Your task to perform on an android device: Clear all items from cart on amazon.com. Add usb-a to usb-b to the cart on amazon.com, then select checkout. Image 0: 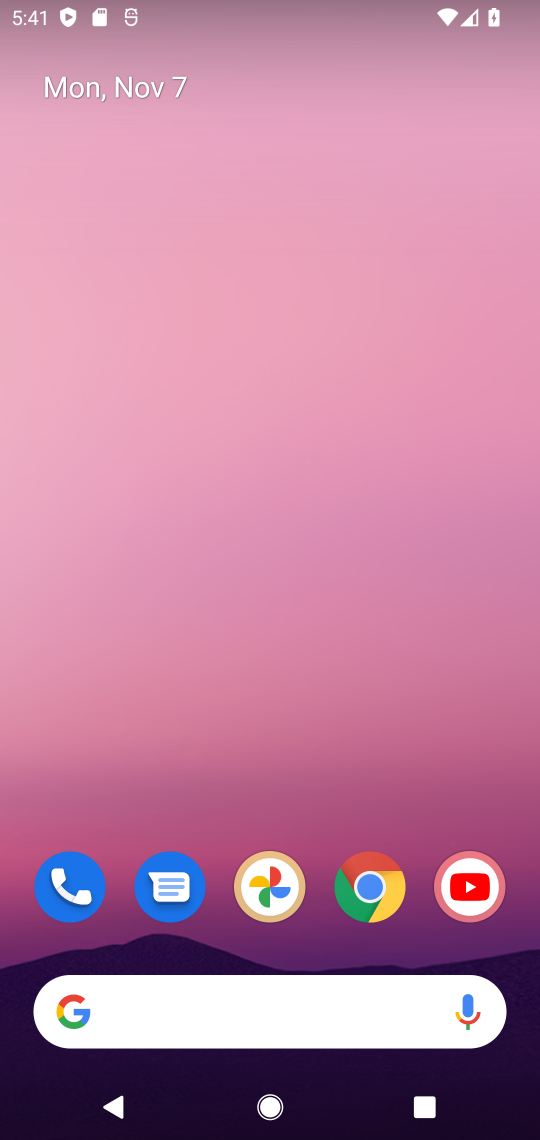
Step 0: click (368, 896)
Your task to perform on an android device: Clear all items from cart on amazon.com. Add usb-a to usb-b to the cart on amazon.com, then select checkout. Image 1: 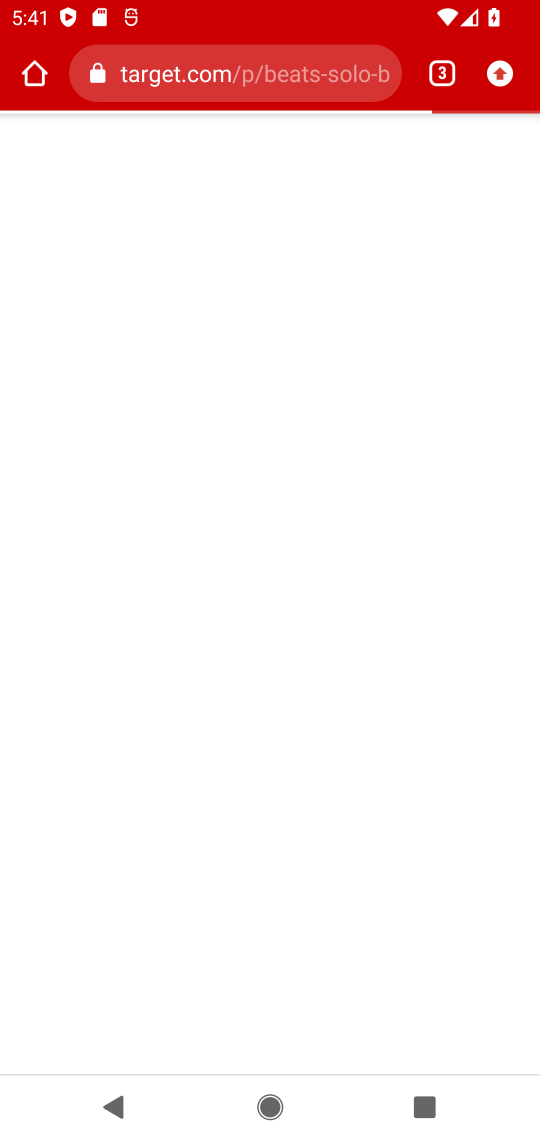
Step 1: click (450, 72)
Your task to perform on an android device: Clear all items from cart on amazon.com. Add usb-a to usb-b to the cart on amazon.com, then select checkout. Image 2: 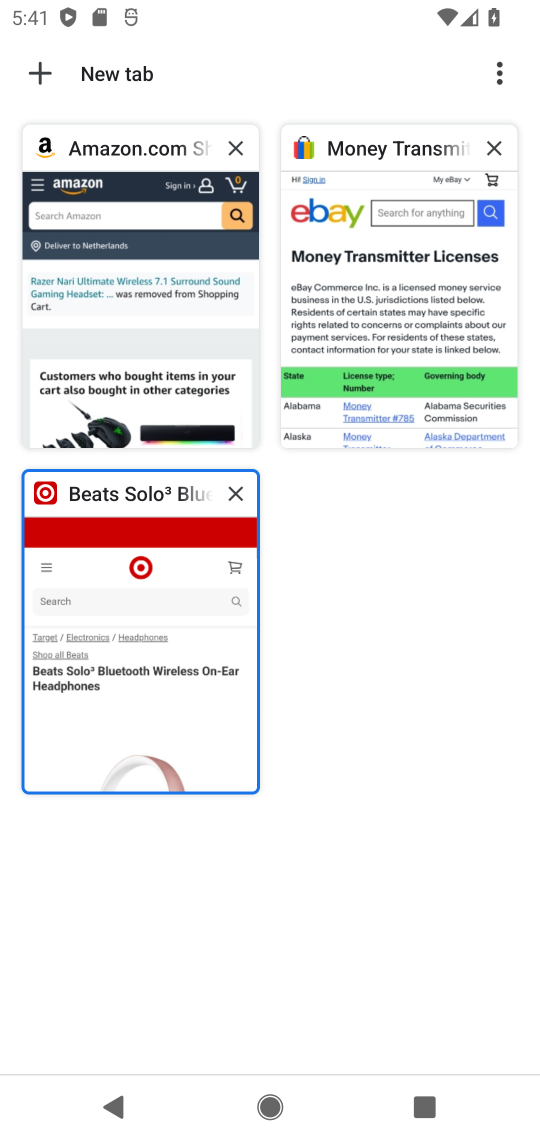
Step 2: click (139, 239)
Your task to perform on an android device: Clear all items from cart on amazon.com. Add usb-a to usb-b to the cart on amazon.com, then select checkout. Image 3: 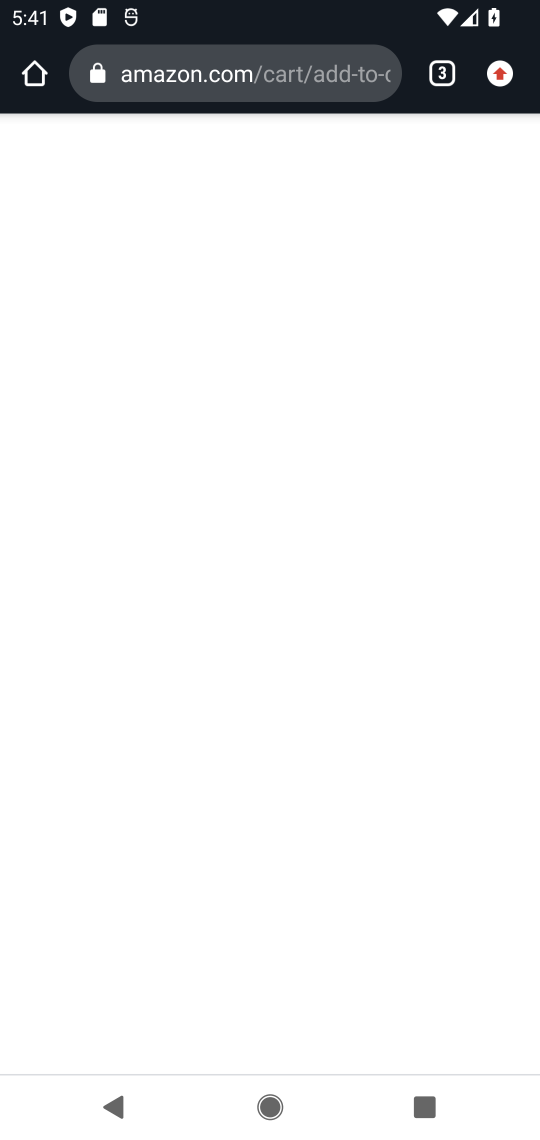
Step 3: click (74, 341)
Your task to perform on an android device: Clear all items from cart on amazon.com. Add usb-a to usb-b to the cart on amazon.com, then select checkout. Image 4: 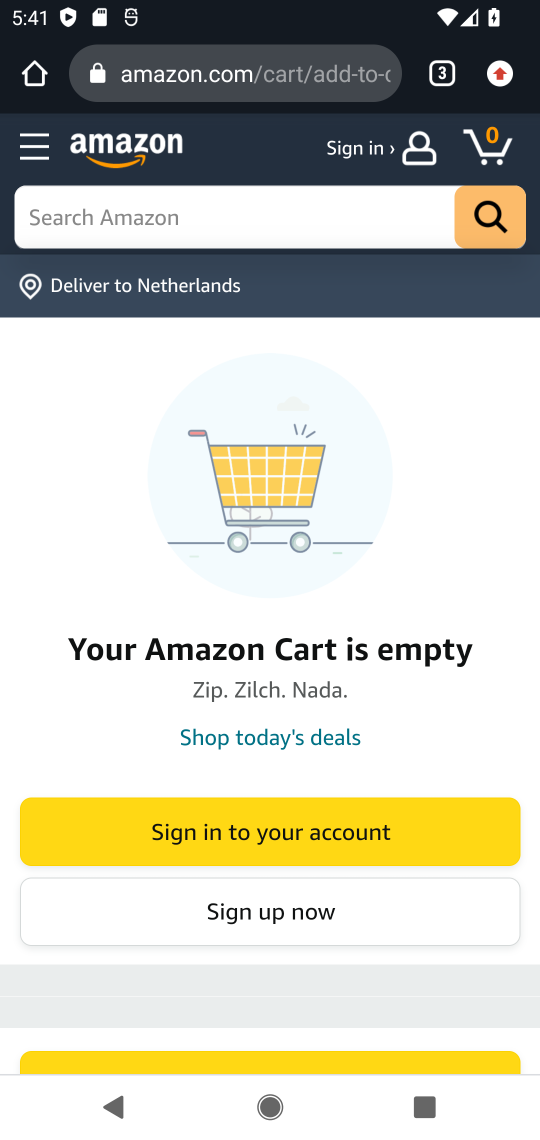
Step 4: click (164, 222)
Your task to perform on an android device: Clear all items from cart on amazon.com. Add usb-a to usb-b to the cart on amazon.com, then select checkout. Image 5: 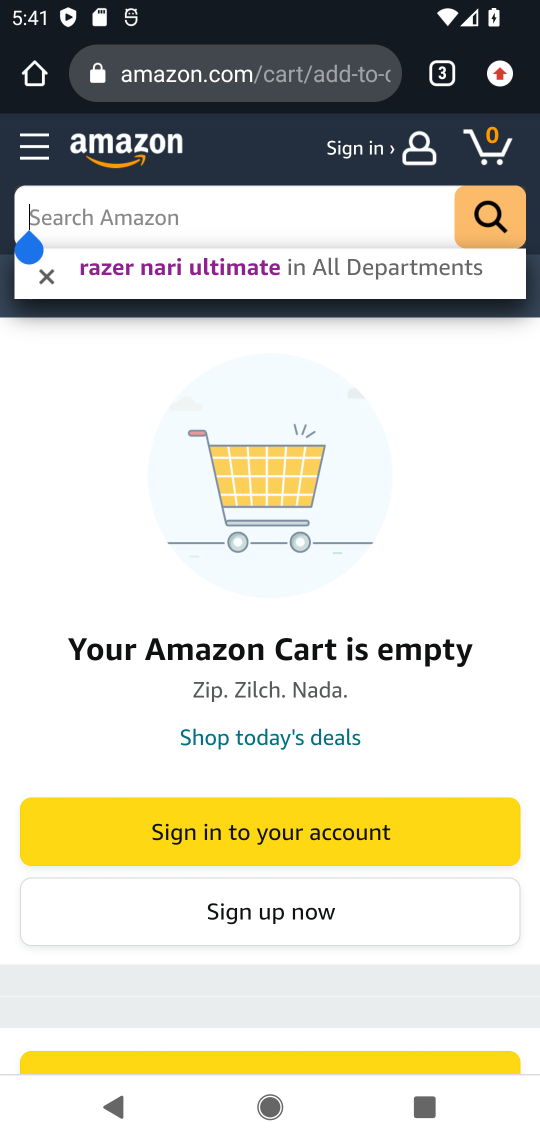
Step 5: type "usb-a to usb-b "
Your task to perform on an android device: Clear all items from cart on amazon.com. Add usb-a to usb-b to the cart on amazon.com, then select checkout. Image 6: 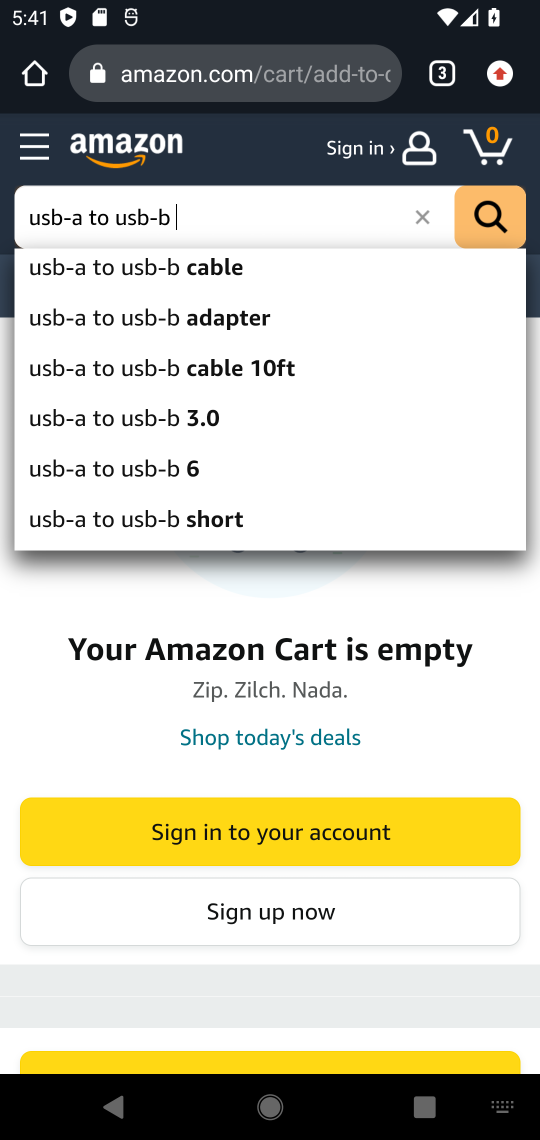
Step 6: click (133, 324)
Your task to perform on an android device: Clear all items from cart on amazon.com. Add usb-a to usb-b to the cart on amazon.com, then select checkout. Image 7: 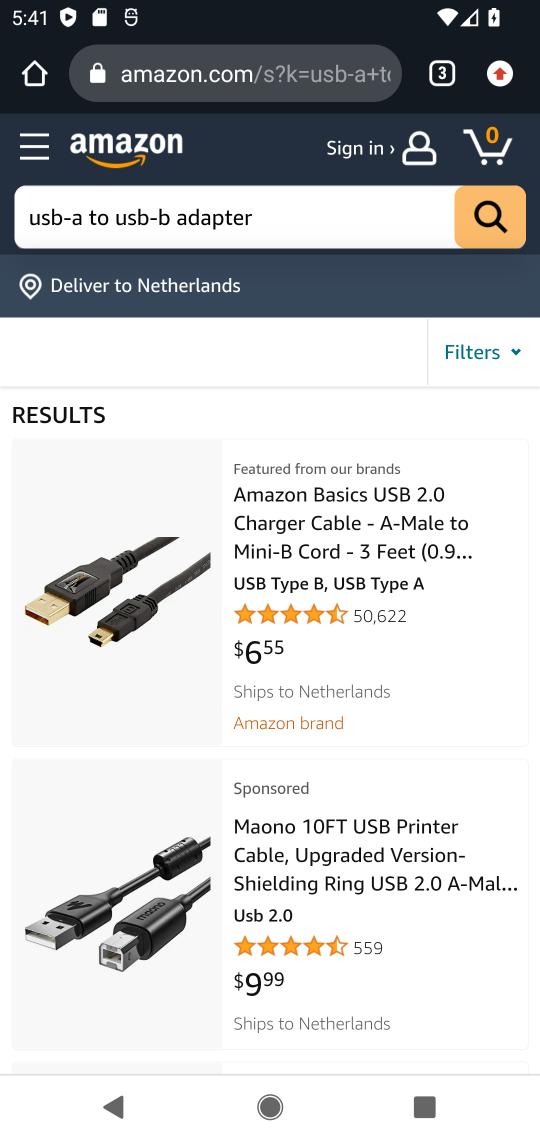
Step 7: drag from (432, 943) to (429, 305)
Your task to perform on an android device: Clear all items from cart on amazon.com. Add usb-a to usb-b to the cart on amazon.com, then select checkout. Image 8: 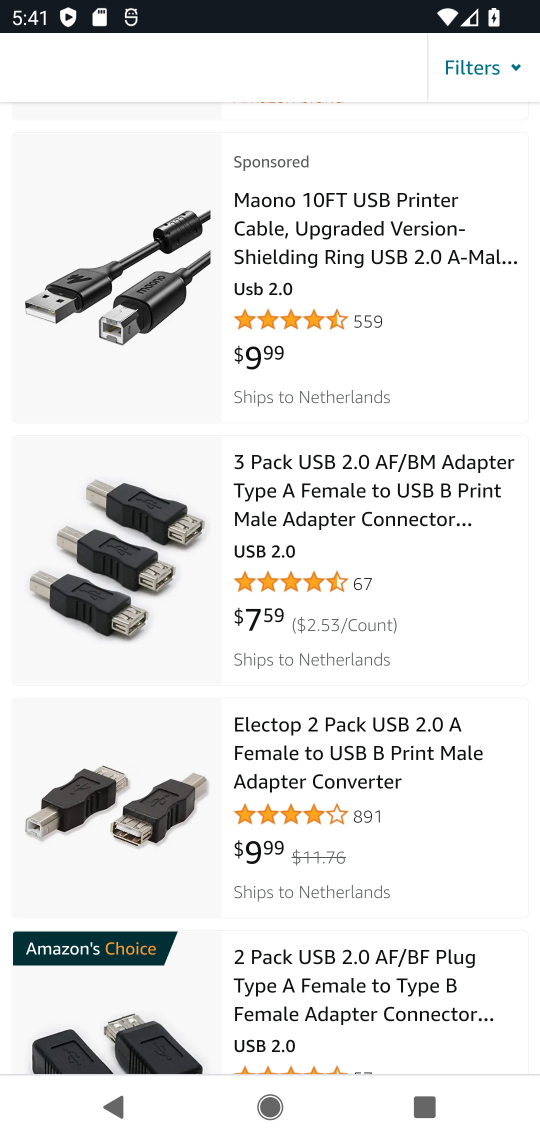
Step 8: click (278, 957)
Your task to perform on an android device: Clear all items from cart on amazon.com. Add usb-a to usb-b to the cart on amazon.com, then select checkout. Image 9: 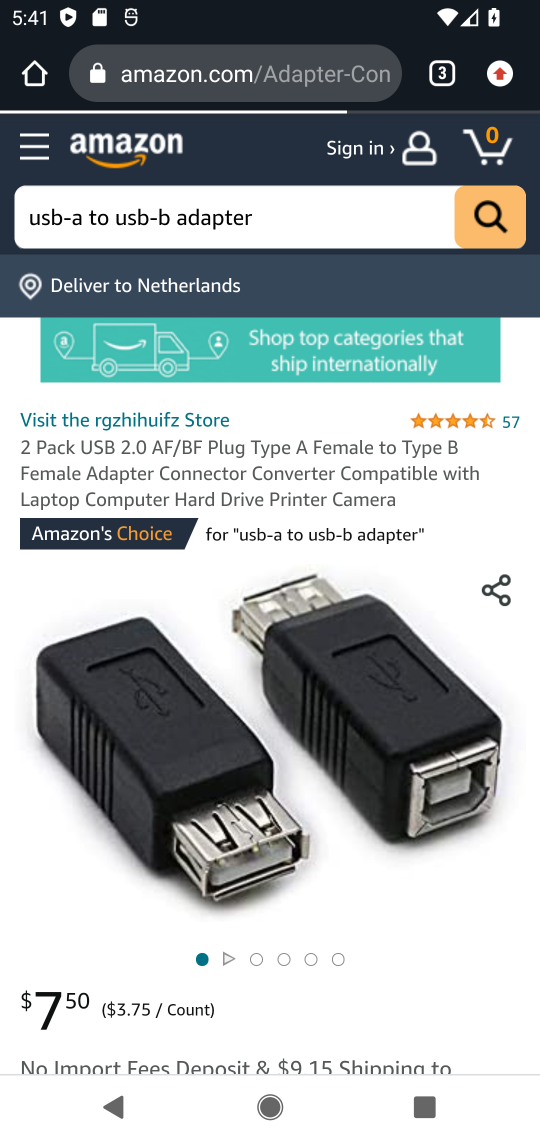
Step 9: drag from (320, 932) to (359, 319)
Your task to perform on an android device: Clear all items from cart on amazon.com. Add usb-a to usb-b to the cart on amazon.com, then select checkout. Image 10: 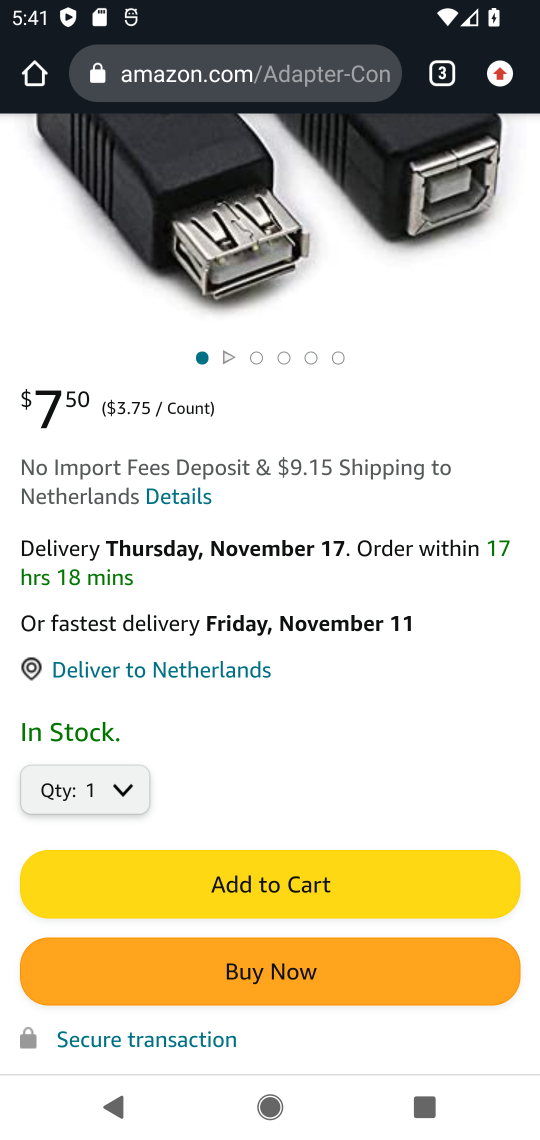
Step 10: click (298, 877)
Your task to perform on an android device: Clear all items from cart on amazon.com. Add usb-a to usb-b to the cart on amazon.com, then select checkout. Image 11: 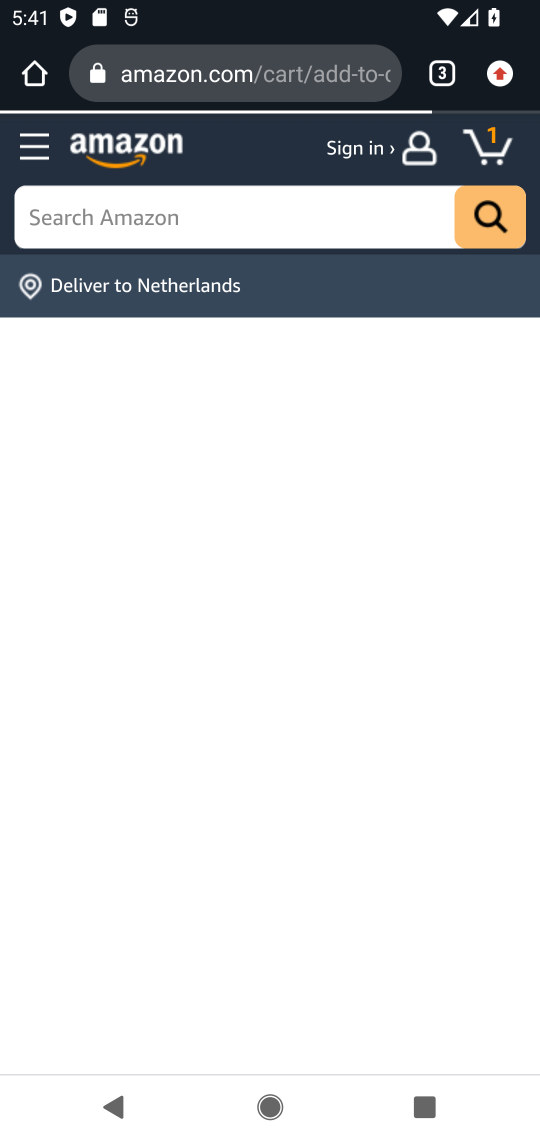
Step 11: task complete